Your task to perform on an android device: toggle sleep mode Image 0: 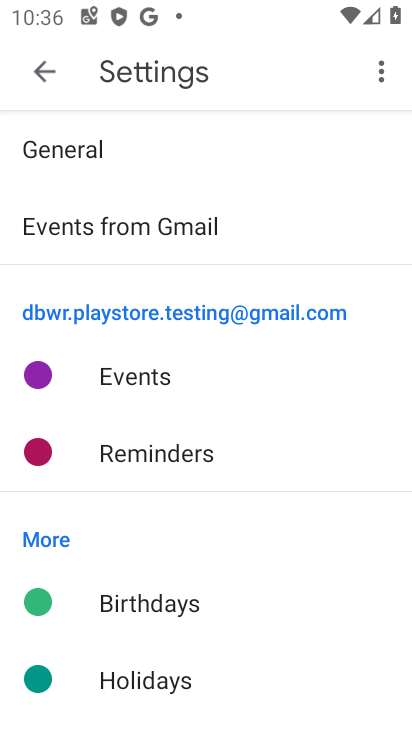
Step 0: drag from (309, 2) to (267, 672)
Your task to perform on an android device: toggle sleep mode Image 1: 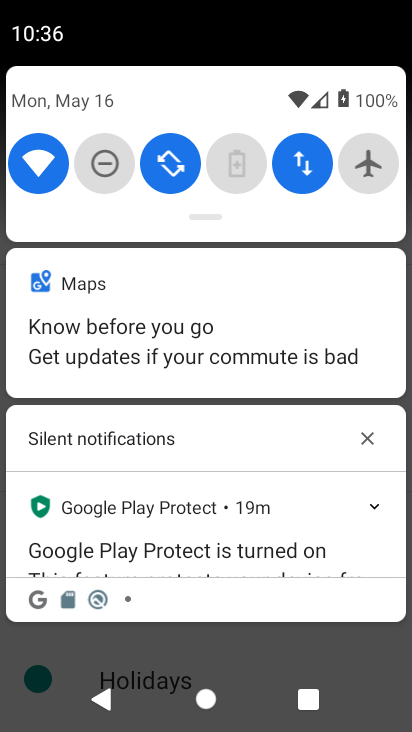
Step 1: drag from (203, 204) to (278, 546)
Your task to perform on an android device: toggle sleep mode Image 2: 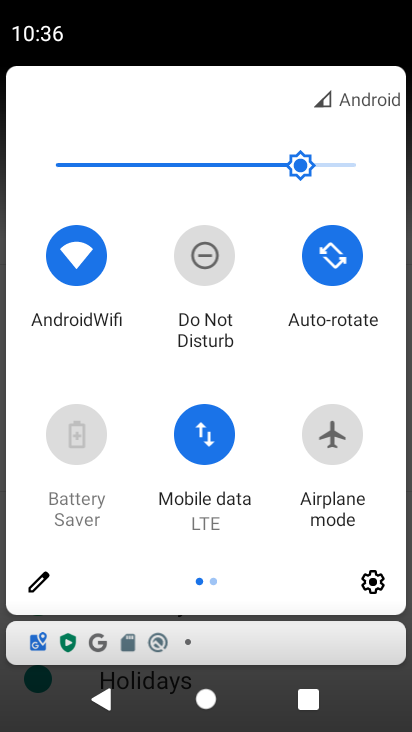
Step 2: click (35, 582)
Your task to perform on an android device: toggle sleep mode Image 3: 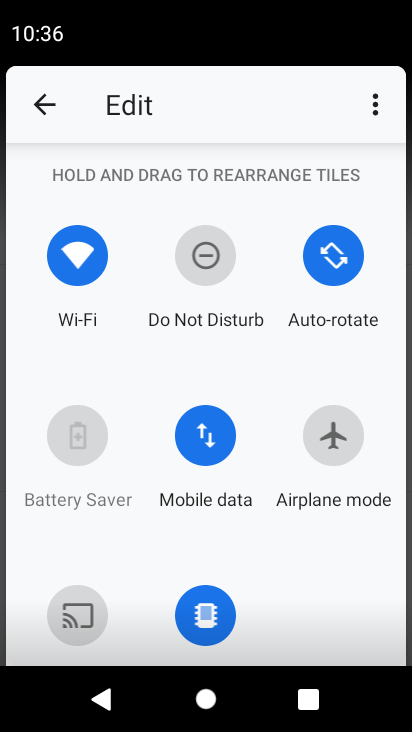
Step 3: task complete